Your task to perform on an android device: Go to Google Image 0: 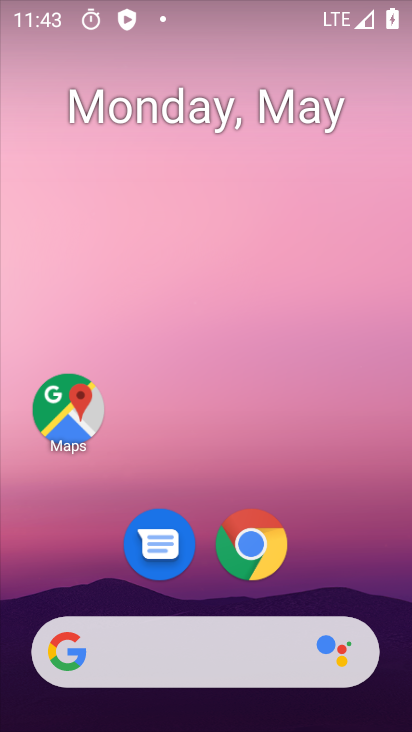
Step 0: drag from (347, 532) to (349, 180)
Your task to perform on an android device: Go to Google Image 1: 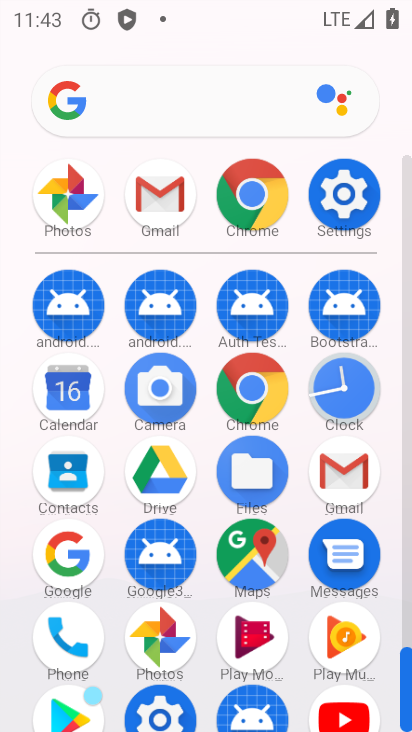
Step 1: click (73, 565)
Your task to perform on an android device: Go to Google Image 2: 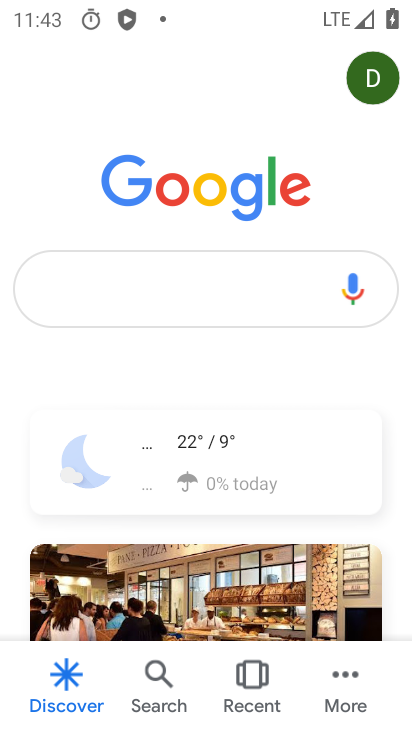
Step 2: task complete